Your task to perform on an android device: Empty the shopping cart on target. Add "usb-c to usb-b" to the cart on target Image 0: 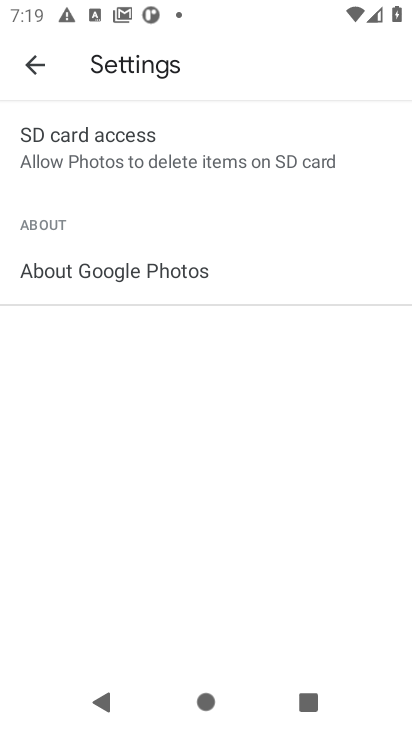
Step 0: press home button
Your task to perform on an android device: Empty the shopping cart on target. Add "usb-c to usb-b" to the cart on target Image 1: 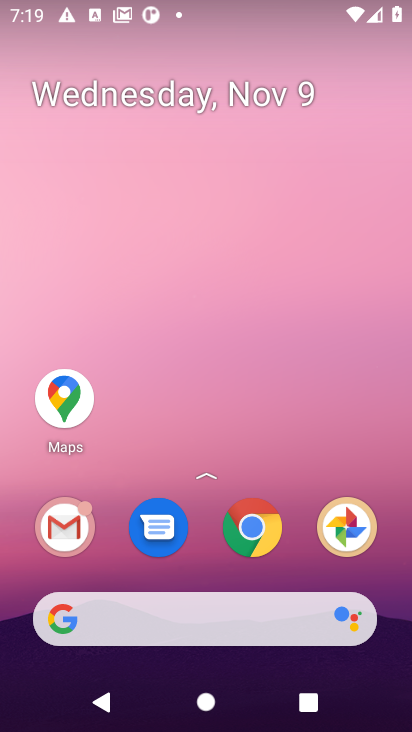
Step 1: click (243, 532)
Your task to perform on an android device: Empty the shopping cart on target. Add "usb-c to usb-b" to the cart on target Image 2: 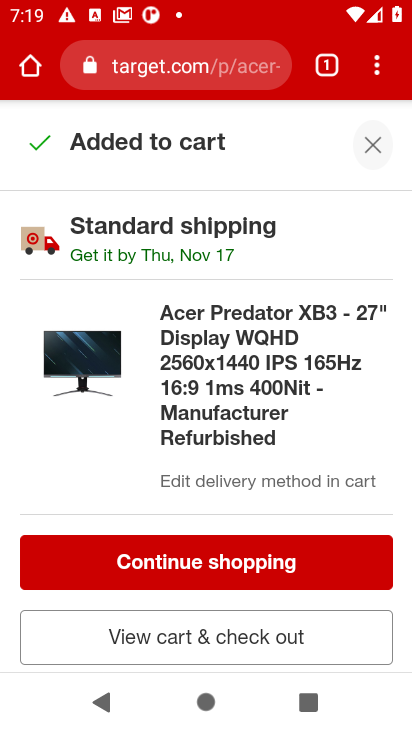
Step 2: click (377, 150)
Your task to perform on an android device: Empty the shopping cart on target. Add "usb-c to usb-b" to the cart on target Image 3: 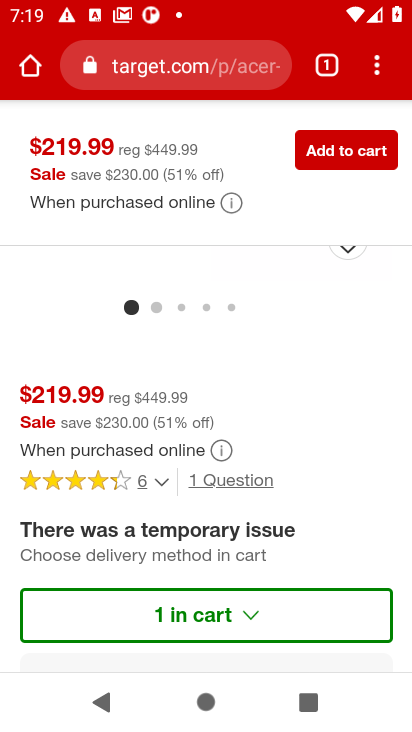
Step 3: drag from (283, 224) to (268, 564)
Your task to perform on an android device: Empty the shopping cart on target. Add "usb-c to usb-b" to the cart on target Image 4: 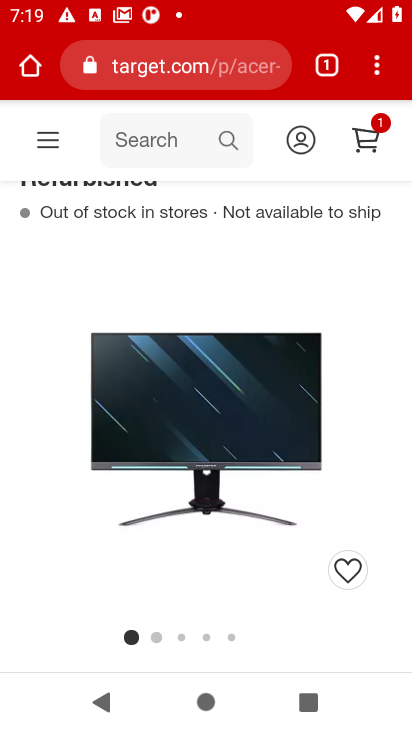
Step 4: drag from (248, 267) to (257, 467)
Your task to perform on an android device: Empty the shopping cart on target. Add "usb-c to usb-b" to the cart on target Image 5: 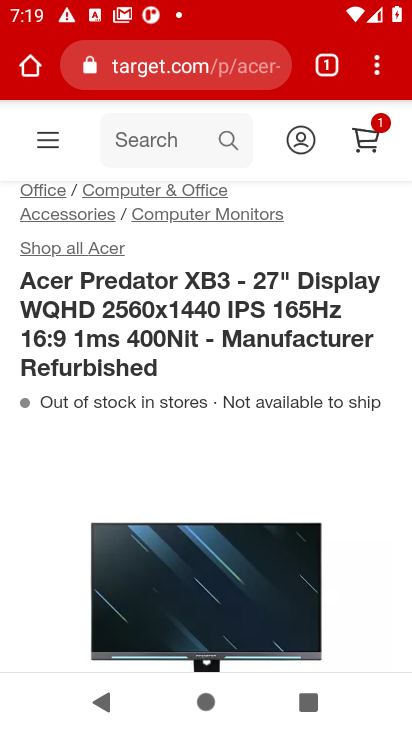
Step 5: click (364, 137)
Your task to perform on an android device: Empty the shopping cart on target. Add "usb-c to usb-b" to the cart on target Image 6: 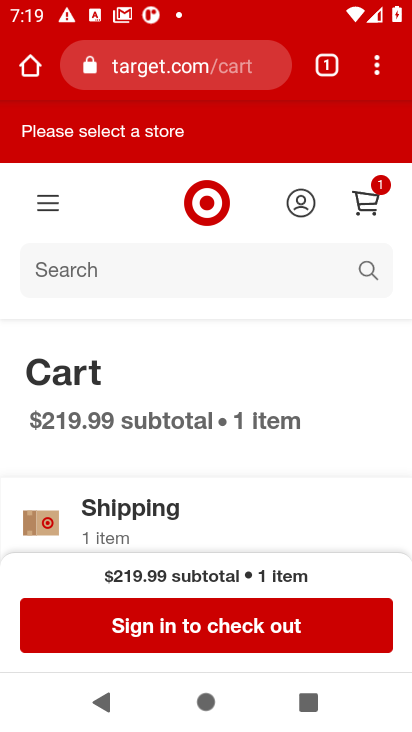
Step 6: drag from (222, 522) to (219, 248)
Your task to perform on an android device: Empty the shopping cart on target. Add "usb-c to usb-b" to the cart on target Image 7: 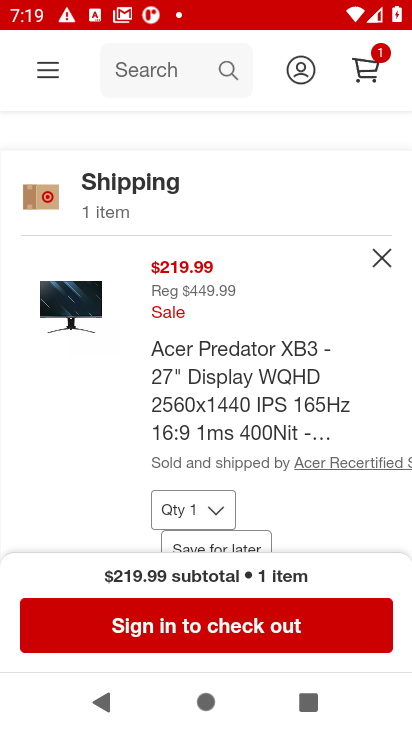
Step 7: click (377, 265)
Your task to perform on an android device: Empty the shopping cart on target. Add "usb-c to usb-b" to the cart on target Image 8: 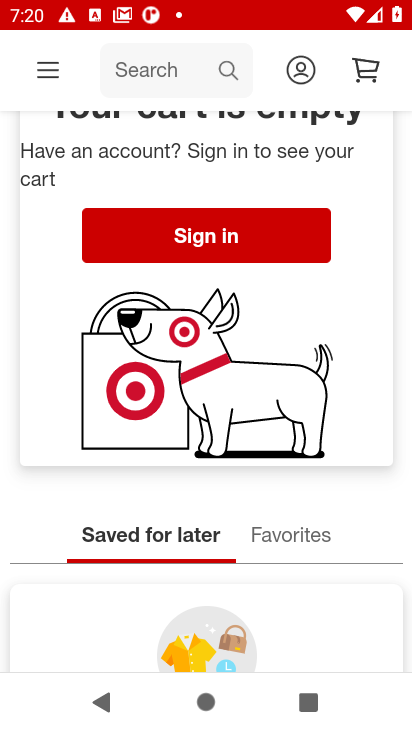
Step 8: drag from (189, 249) to (199, 511)
Your task to perform on an android device: Empty the shopping cart on target. Add "usb-c to usb-b" to the cart on target Image 9: 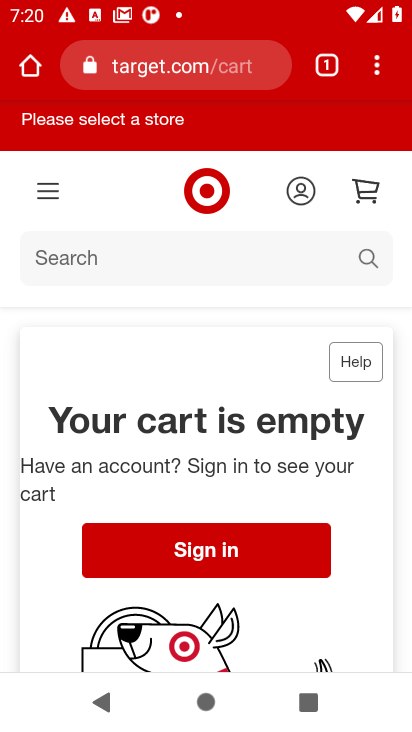
Step 9: click (354, 263)
Your task to perform on an android device: Empty the shopping cart on target. Add "usb-c to usb-b" to the cart on target Image 10: 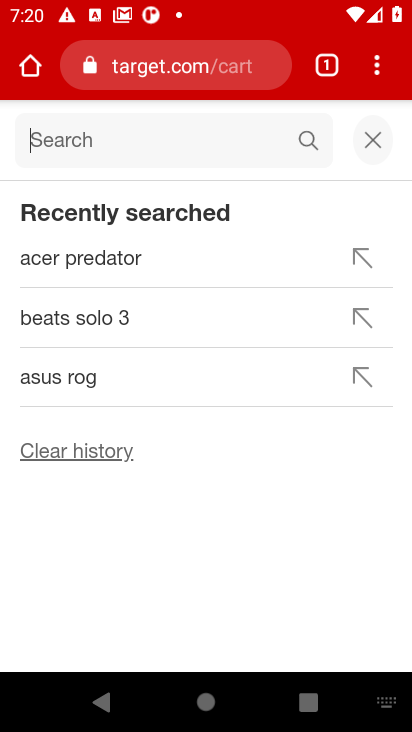
Step 10: type "usb-c to usb-b"
Your task to perform on an android device: Empty the shopping cart on target. Add "usb-c to usb-b" to the cart on target Image 11: 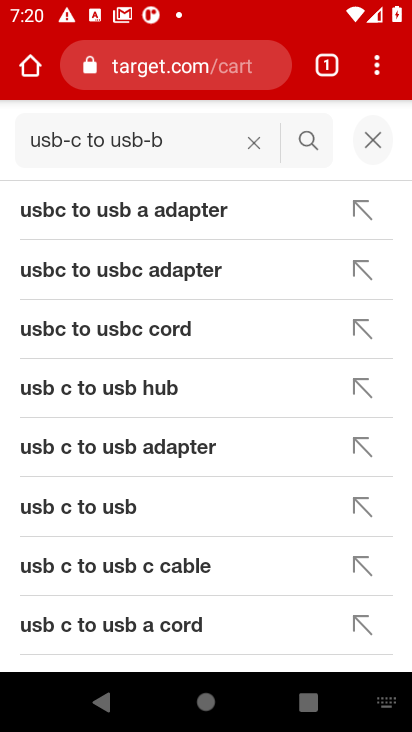
Step 11: click (308, 144)
Your task to perform on an android device: Empty the shopping cart on target. Add "usb-c to usb-b" to the cart on target Image 12: 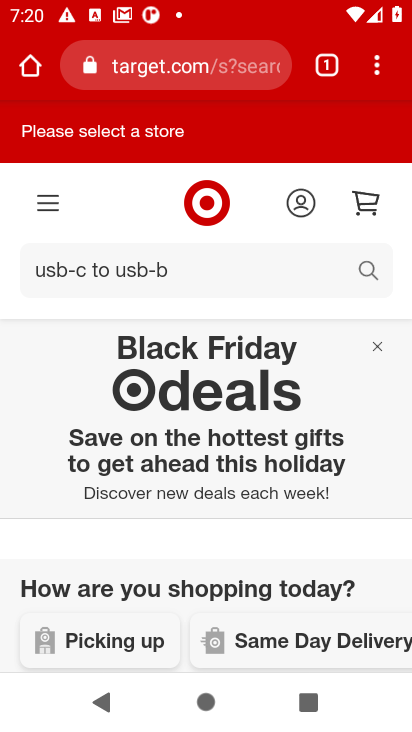
Step 12: task complete